Your task to perform on an android device: Open accessibility settings Image 0: 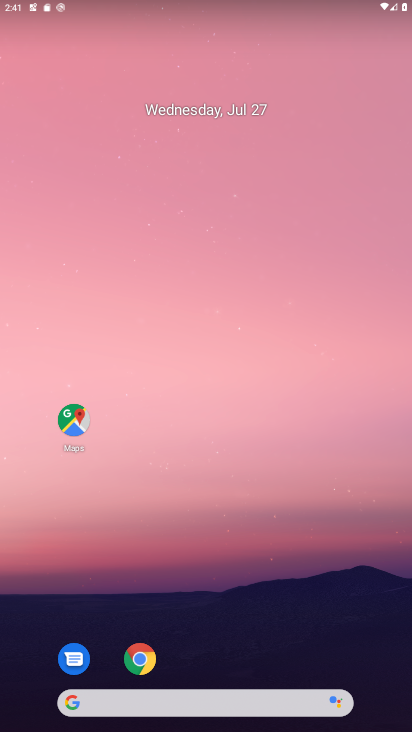
Step 0: drag from (228, 591) to (162, 63)
Your task to perform on an android device: Open accessibility settings Image 1: 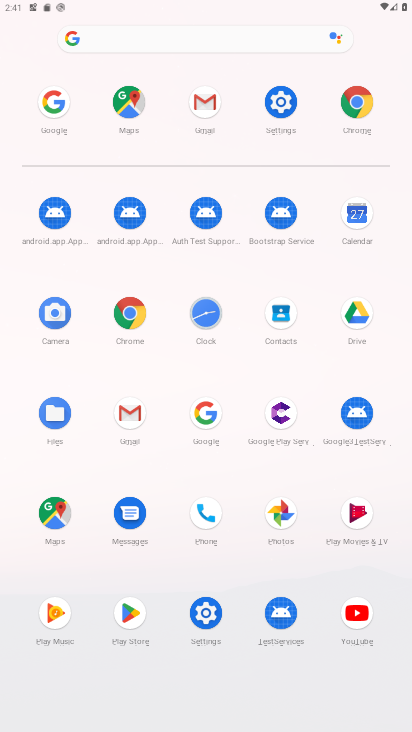
Step 1: click (282, 110)
Your task to perform on an android device: Open accessibility settings Image 2: 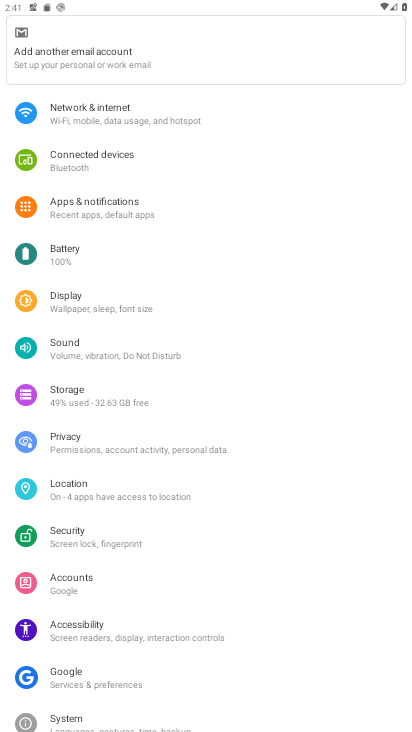
Step 2: click (115, 636)
Your task to perform on an android device: Open accessibility settings Image 3: 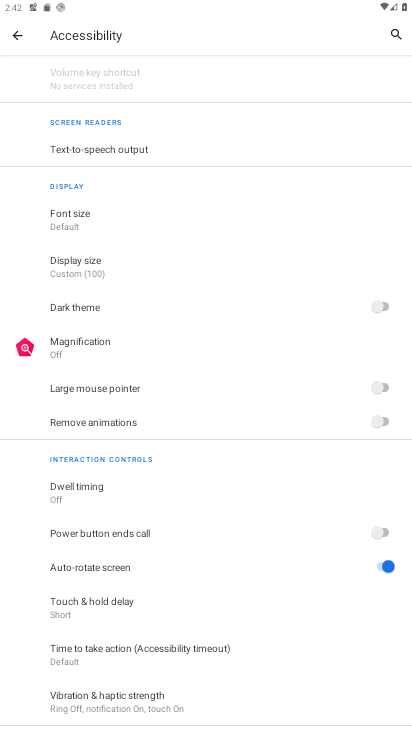
Step 3: task complete